Your task to perform on an android device: Go to location settings Image 0: 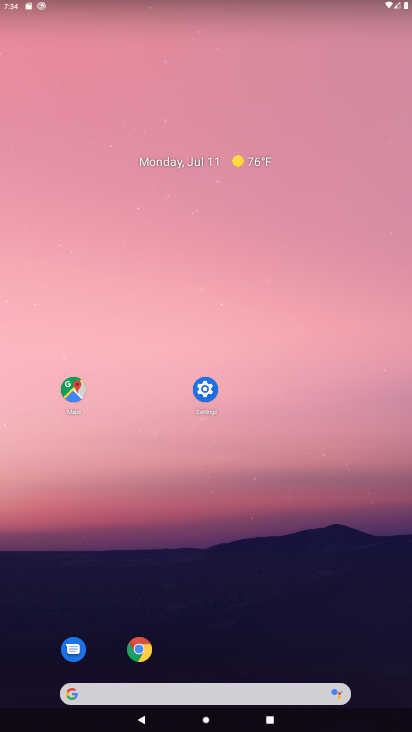
Step 0: click (189, 388)
Your task to perform on an android device: Go to location settings Image 1: 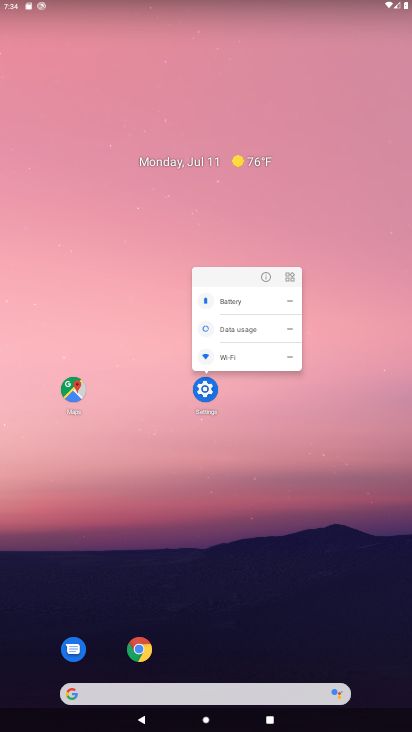
Step 1: click (208, 382)
Your task to perform on an android device: Go to location settings Image 2: 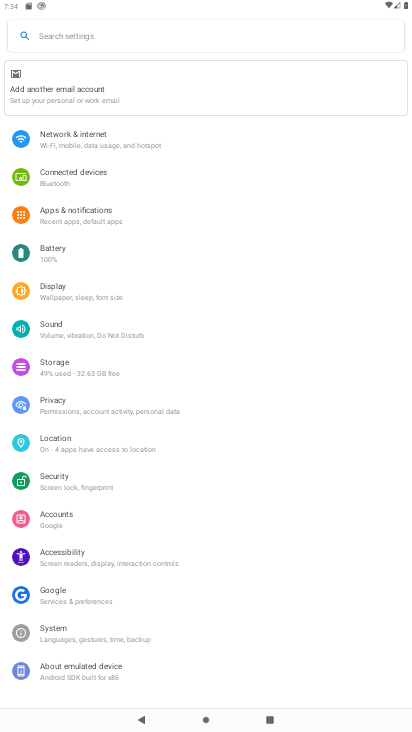
Step 2: click (64, 436)
Your task to perform on an android device: Go to location settings Image 3: 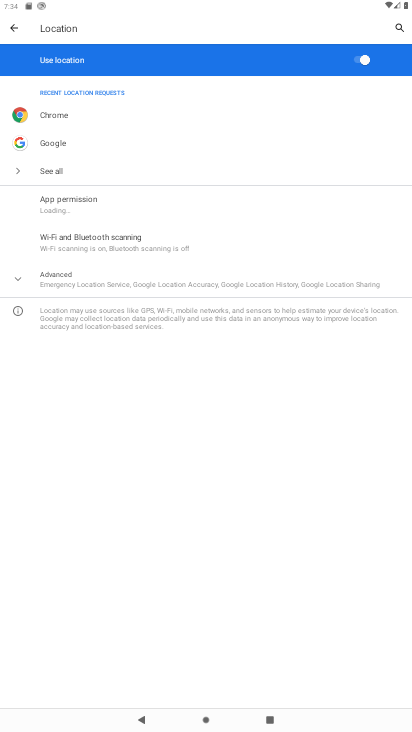
Step 3: click (22, 281)
Your task to perform on an android device: Go to location settings Image 4: 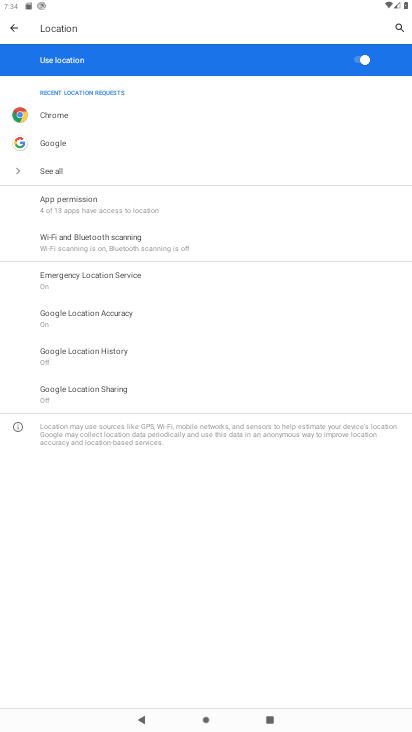
Step 4: task complete